Your task to perform on an android device: turn off priority inbox in the gmail app Image 0: 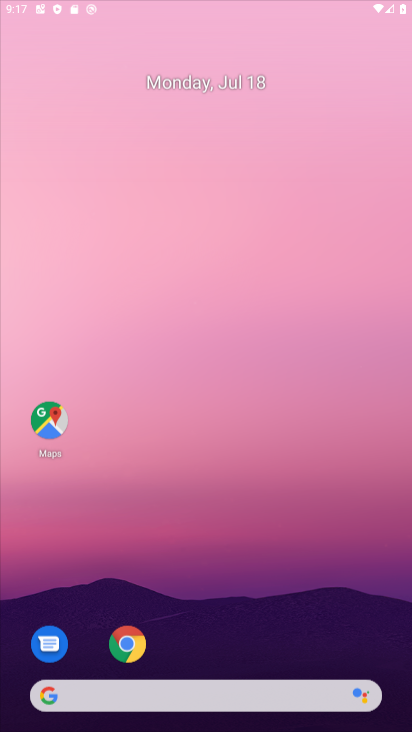
Step 0: click (138, 637)
Your task to perform on an android device: turn off priority inbox in the gmail app Image 1: 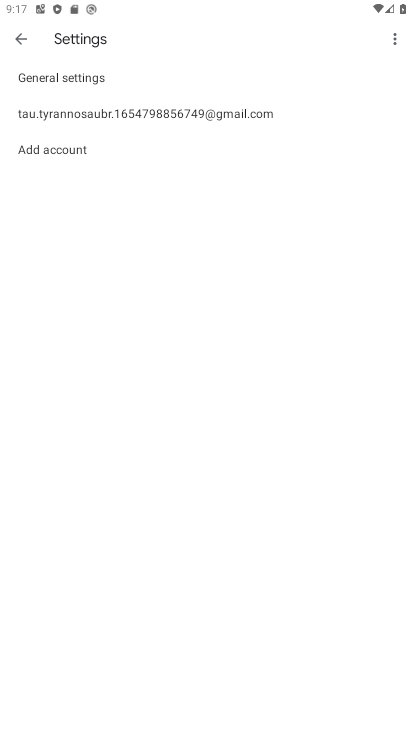
Step 1: press home button
Your task to perform on an android device: turn off priority inbox in the gmail app Image 2: 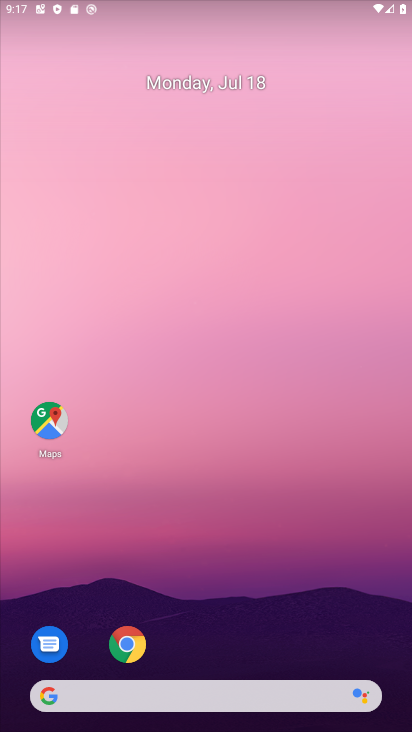
Step 2: drag from (205, 676) to (207, 44)
Your task to perform on an android device: turn off priority inbox in the gmail app Image 3: 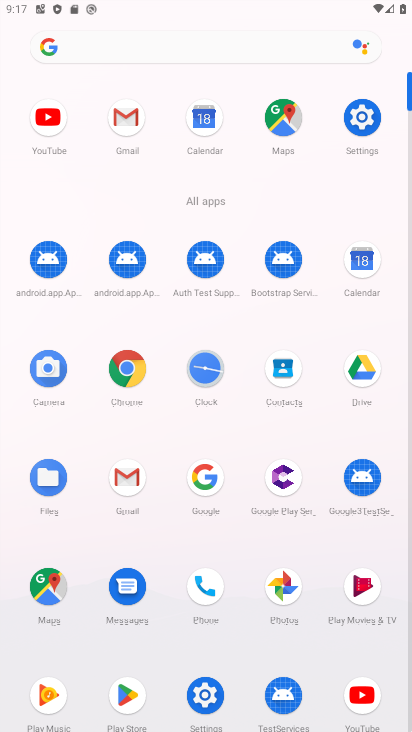
Step 3: click (129, 484)
Your task to perform on an android device: turn off priority inbox in the gmail app Image 4: 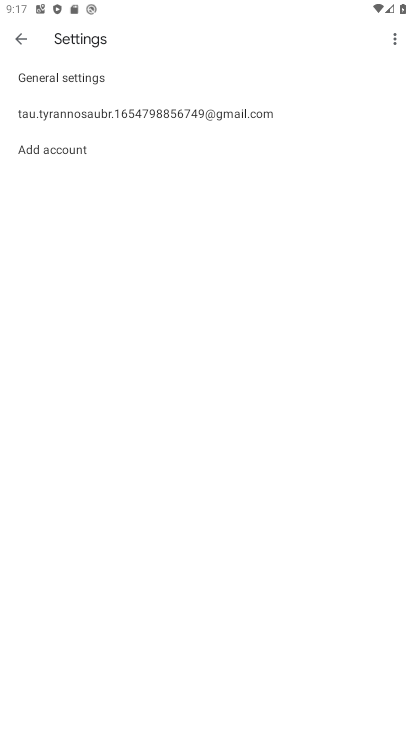
Step 4: click (37, 109)
Your task to perform on an android device: turn off priority inbox in the gmail app Image 5: 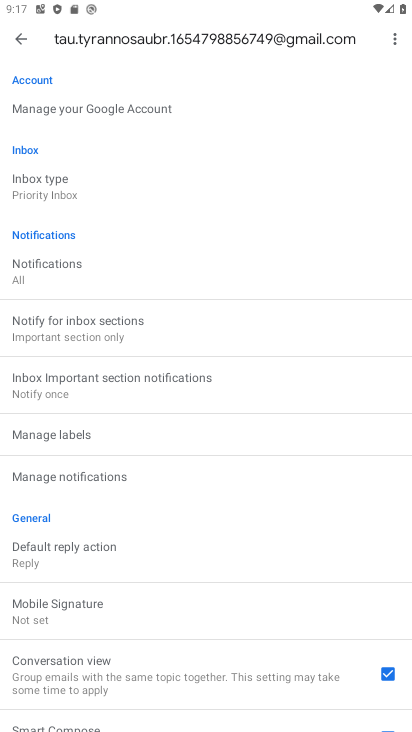
Step 5: click (25, 184)
Your task to perform on an android device: turn off priority inbox in the gmail app Image 6: 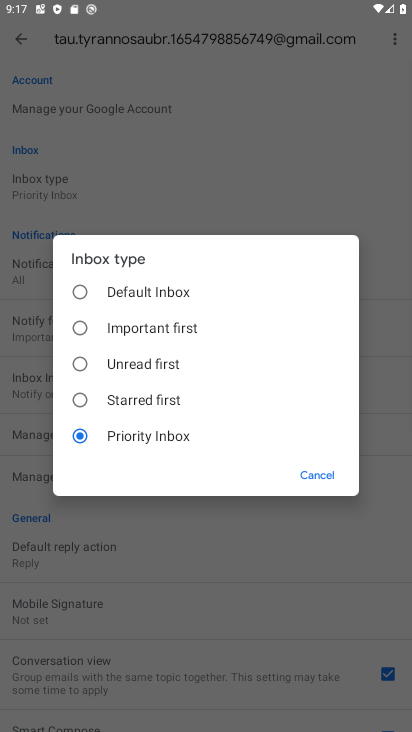
Step 6: click (86, 287)
Your task to perform on an android device: turn off priority inbox in the gmail app Image 7: 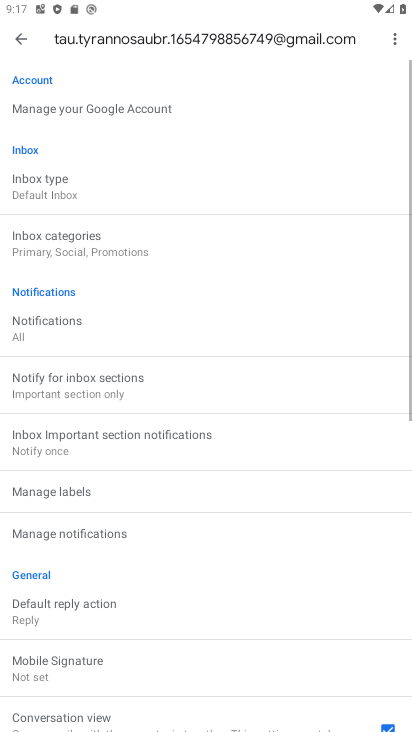
Step 7: task complete